Your task to perform on an android device: Open the stopwatch Image 0: 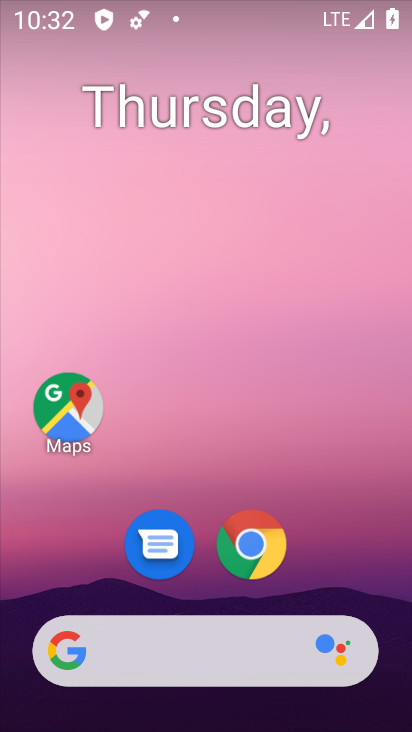
Step 0: drag from (334, 584) to (277, 327)
Your task to perform on an android device: Open the stopwatch Image 1: 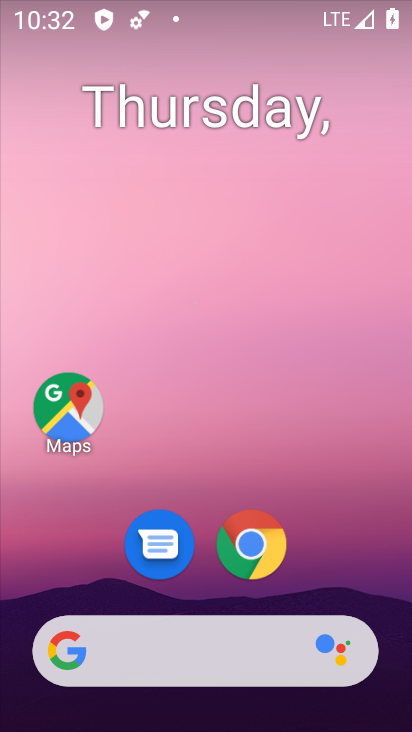
Step 1: drag from (343, 567) to (307, 100)
Your task to perform on an android device: Open the stopwatch Image 2: 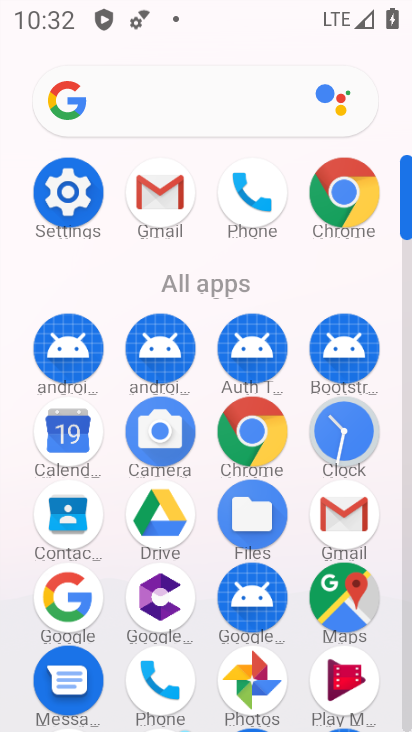
Step 2: click (365, 431)
Your task to perform on an android device: Open the stopwatch Image 3: 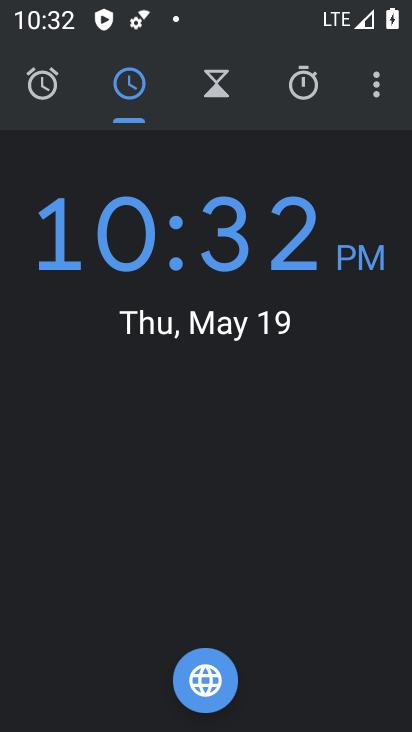
Step 3: click (293, 94)
Your task to perform on an android device: Open the stopwatch Image 4: 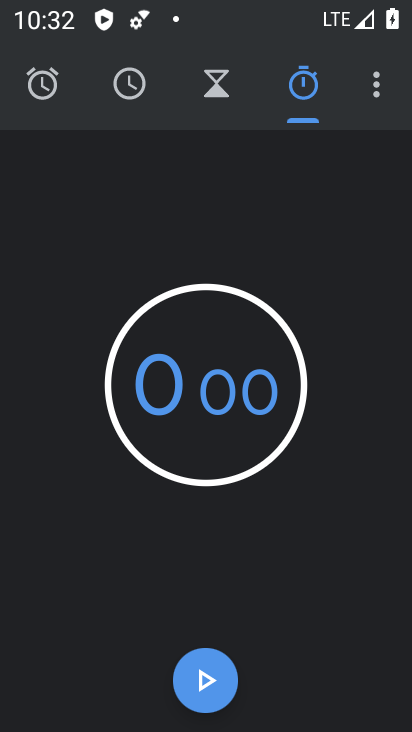
Step 4: task complete